Your task to perform on an android device: Go to internet settings Image 0: 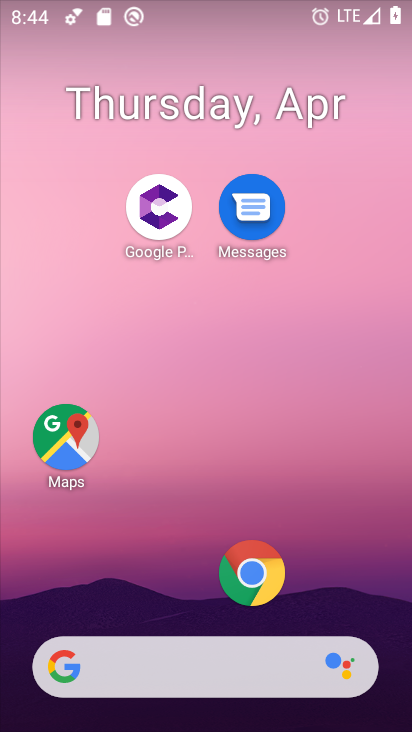
Step 0: drag from (185, 14) to (159, 621)
Your task to perform on an android device: Go to internet settings Image 1: 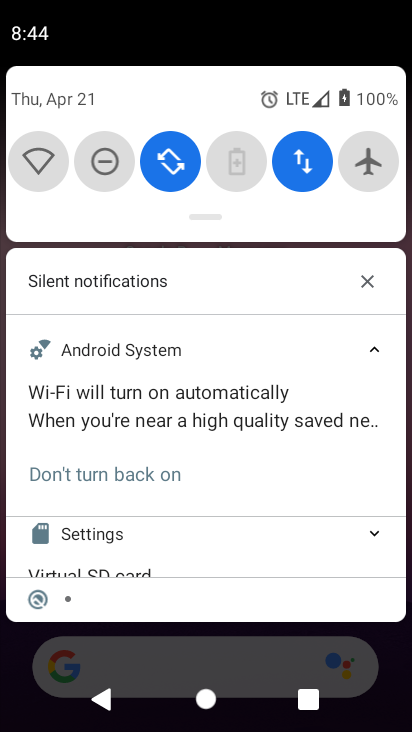
Step 1: drag from (193, 645) to (199, 111)
Your task to perform on an android device: Go to internet settings Image 2: 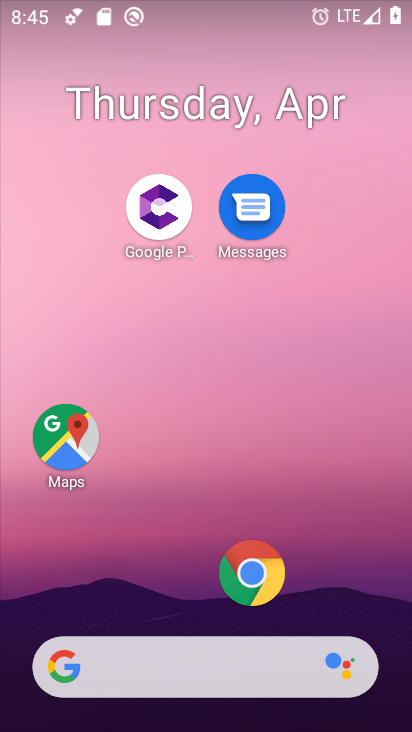
Step 2: drag from (208, 612) to (212, 85)
Your task to perform on an android device: Go to internet settings Image 3: 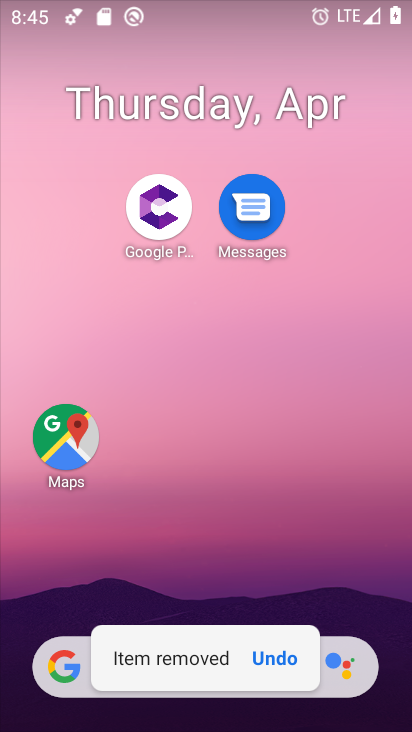
Step 3: click (276, 659)
Your task to perform on an android device: Go to internet settings Image 4: 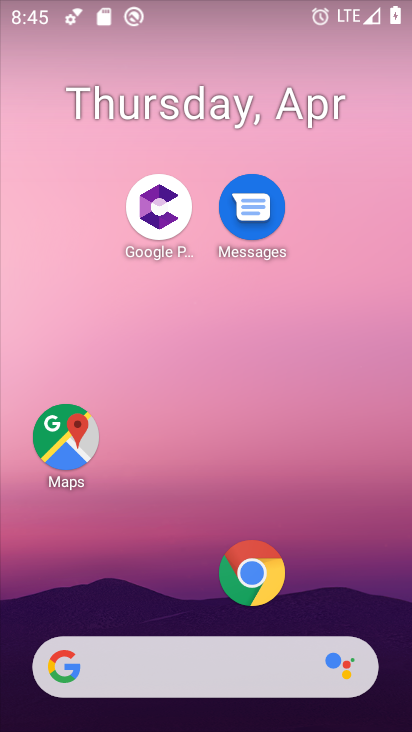
Step 4: drag from (333, 600) to (323, 55)
Your task to perform on an android device: Go to internet settings Image 5: 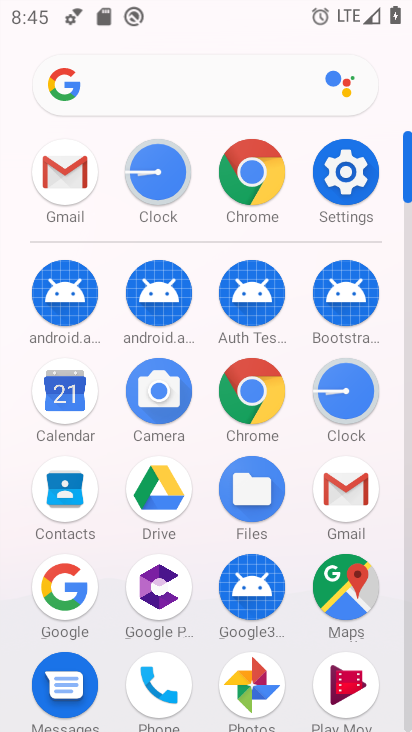
Step 5: click (344, 165)
Your task to perform on an android device: Go to internet settings Image 6: 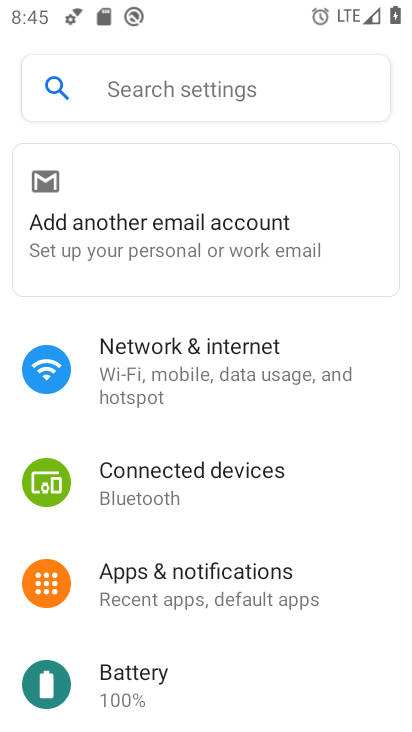
Step 6: click (211, 362)
Your task to perform on an android device: Go to internet settings Image 7: 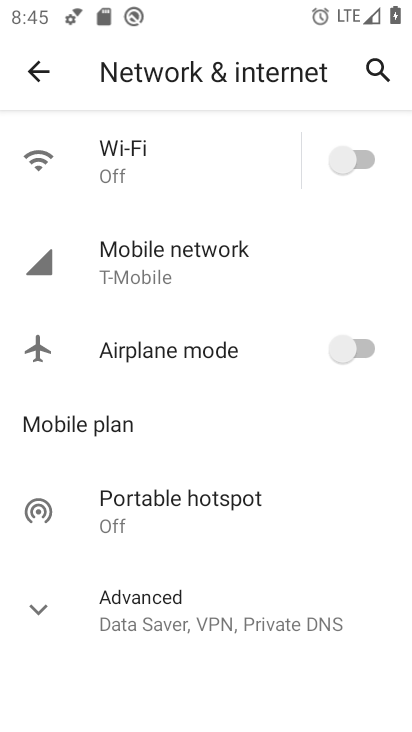
Step 7: click (32, 610)
Your task to perform on an android device: Go to internet settings Image 8: 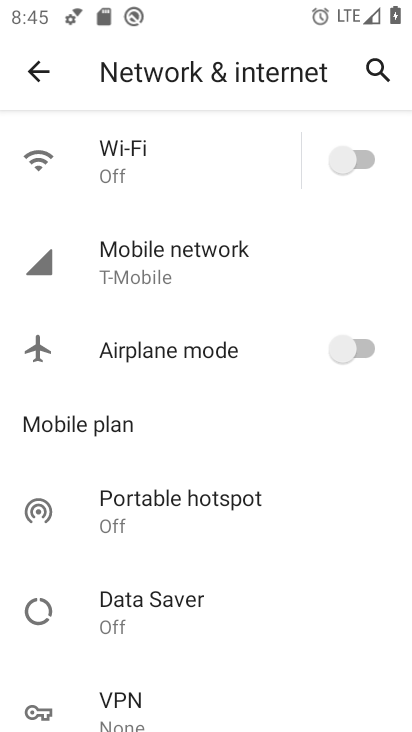
Step 8: task complete